Your task to perform on an android device: snooze an email in the gmail app Image 0: 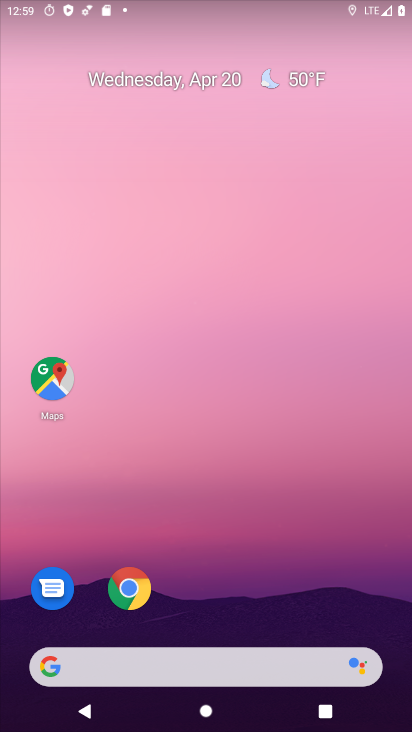
Step 0: drag from (187, 7) to (284, 42)
Your task to perform on an android device: snooze an email in the gmail app Image 1: 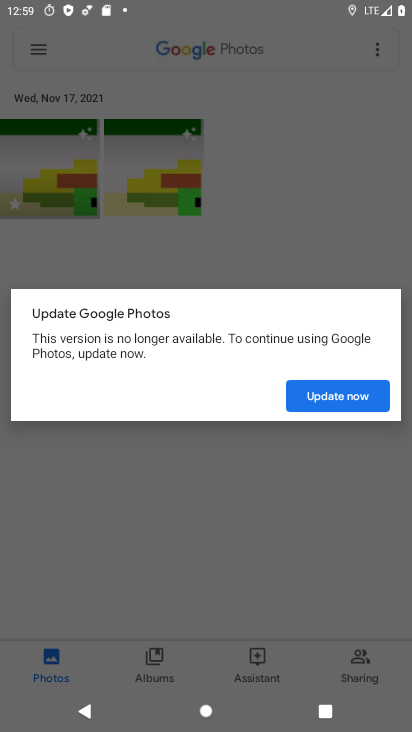
Step 1: press home button
Your task to perform on an android device: snooze an email in the gmail app Image 2: 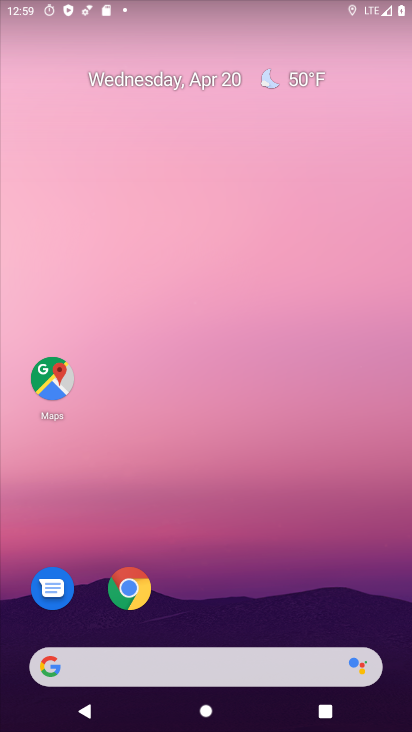
Step 2: drag from (190, 535) to (184, 26)
Your task to perform on an android device: snooze an email in the gmail app Image 3: 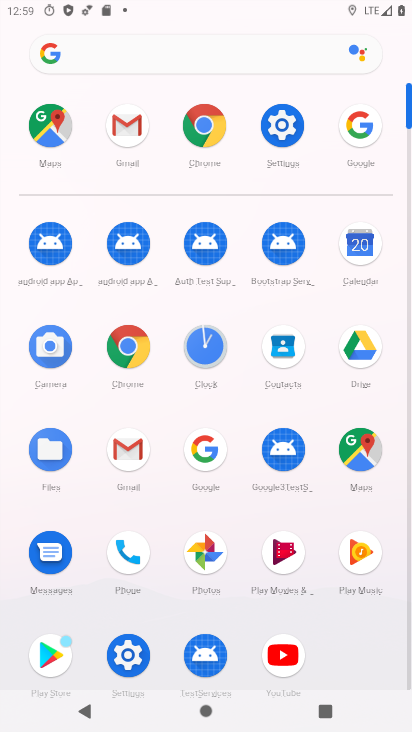
Step 3: click (108, 447)
Your task to perform on an android device: snooze an email in the gmail app Image 4: 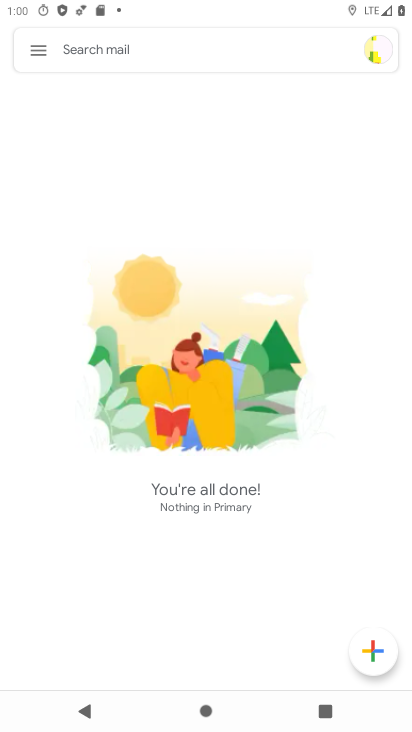
Step 4: task complete